Your task to perform on an android device: turn off location history Image 0: 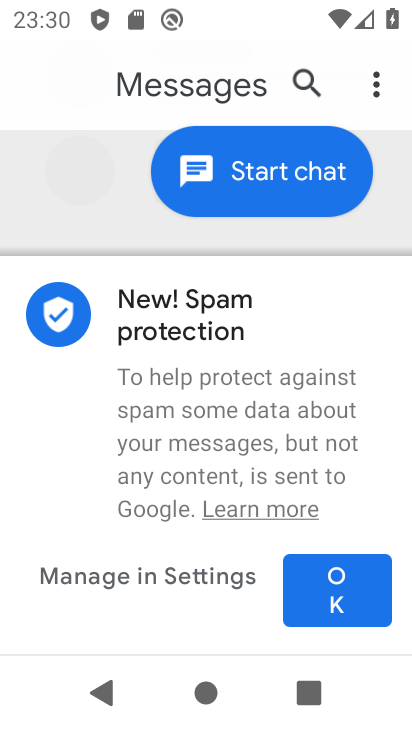
Step 0: press home button
Your task to perform on an android device: turn off location history Image 1: 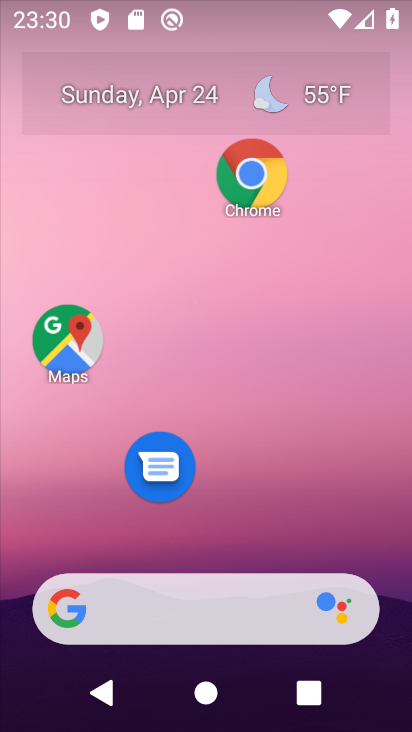
Step 1: drag from (272, 423) to (212, 3)
Your task to perform on an android device: turn off location history Image 2: 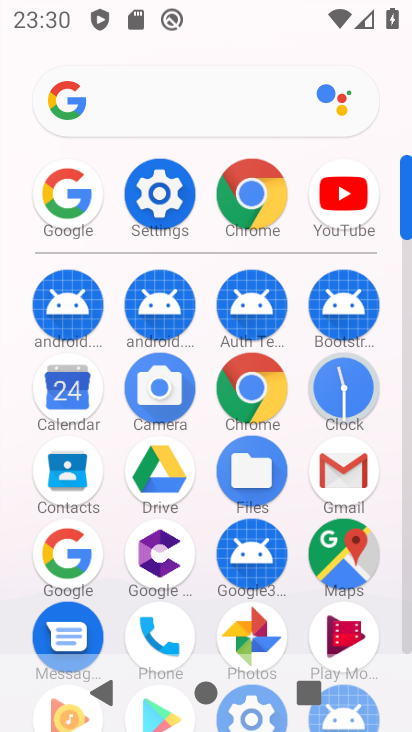
Step 2: click (154, 195)
Your task to perform on an android device: turn off location history Image 3: 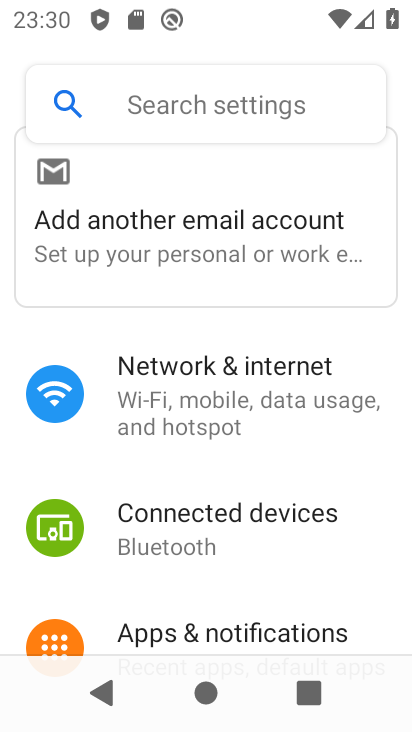
Step 3: drag from (270, 568) to (269, 59)
Your task to perform on an android device: turn off location history Image 4: 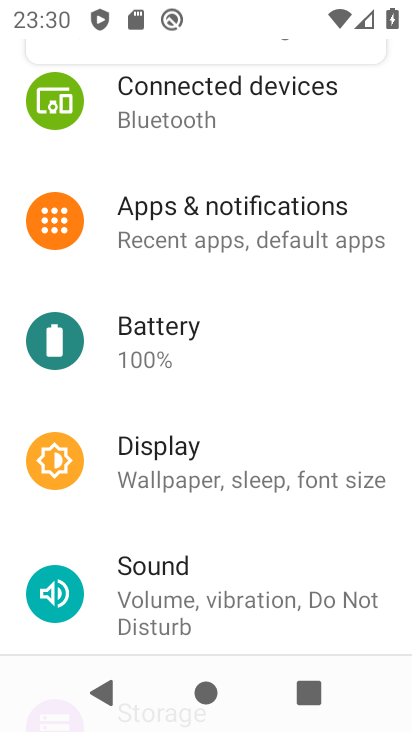
Step 4: drag from (262, 603) to (226, 141)
Your task to perform on an android device: turn off location history Image 5: 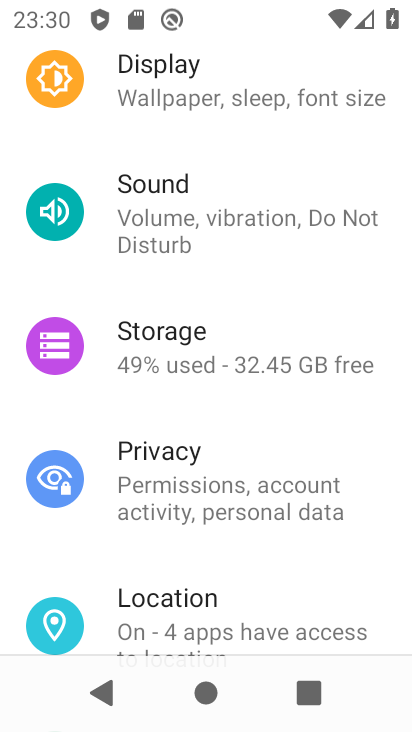
Step 5: click (190, 620)
Your task to perform on an android device: turn off location history Image 6: 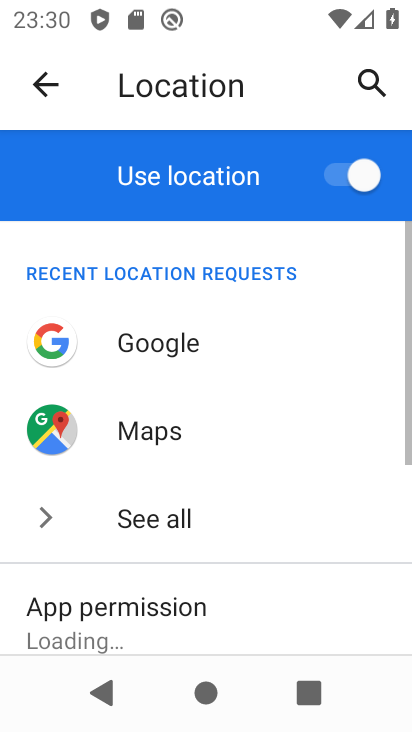
Step 6: drag from (251, 550) to (245, 208)
Your task to perform on an android device: turn off location history Image 7: 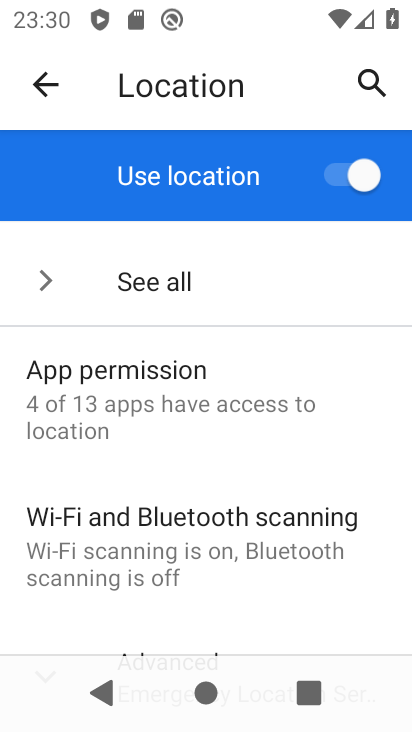
Step 7: drag from (201, 576) to (235, 251)
Your task to perform on an android device: turn off location history Image 8: 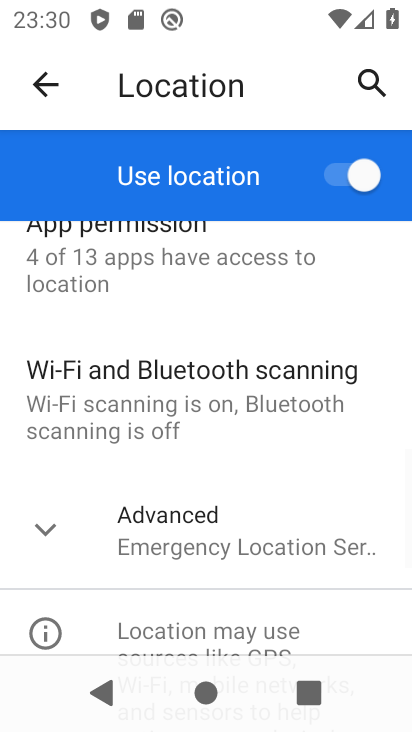
Step 8: click (160, 554)
Your task to perform on an android device: turn off location history Image 9: 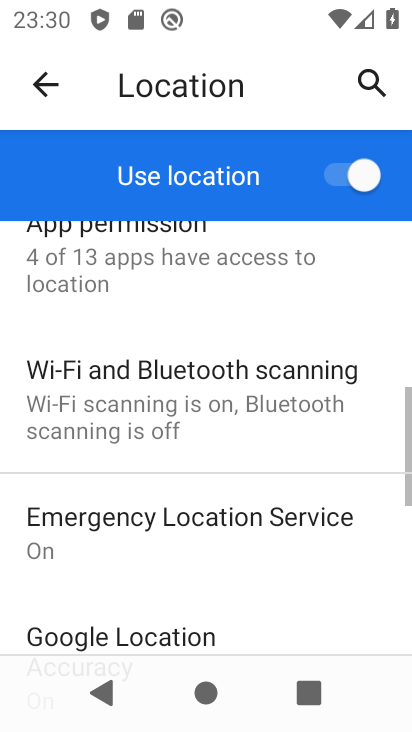
Step 9: drag from (240, 605) to (239, 329)
Your task to perform on an android device: turn off location history Image 10: 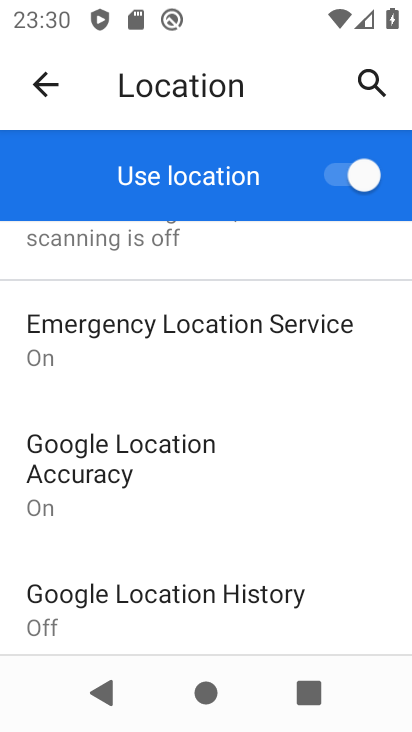
Step 10: click (201, 596)
Your task to perform on an android device: turn off location history Image 11: 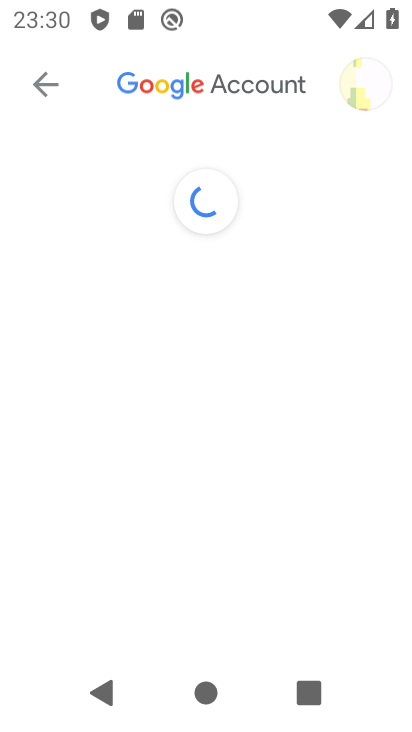
Step 11: task complete